Your task to perform on an android device: Play the last video I watched on Youtube Image 0: 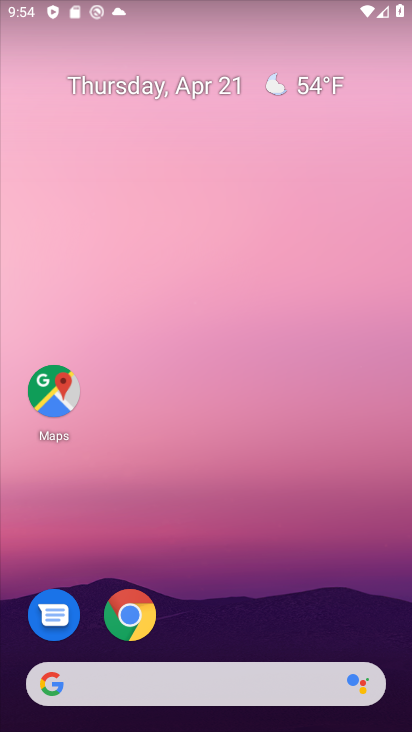
Step 0: drag from (285, 642) to (291, 9)
Your task to perform on an android device: Play the last video I watched on Youtube Image 1: 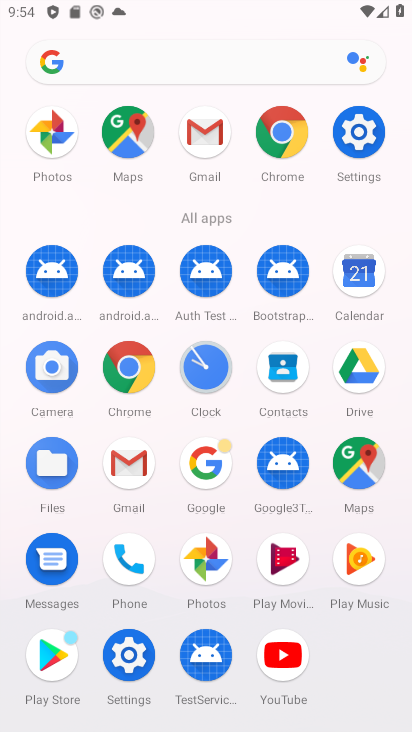
Step 1: click (269, 657)
Your task to perform on an android device: Play the last video I watched on Youtube Image 2: 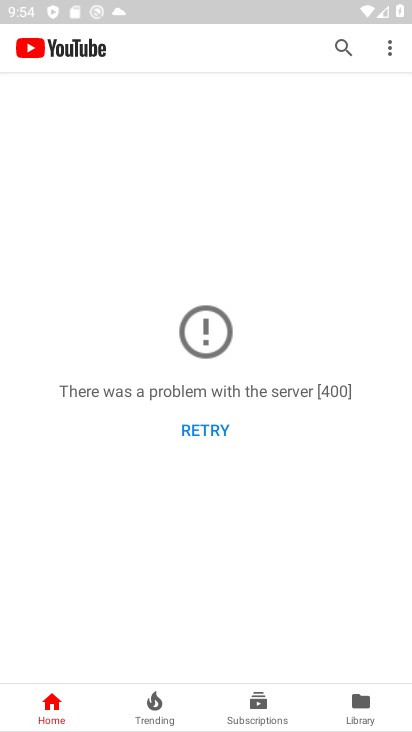
Step 2: click (364, 702)
Your task to perform on an android device: Play the last video I watched on Youtube Image 3: 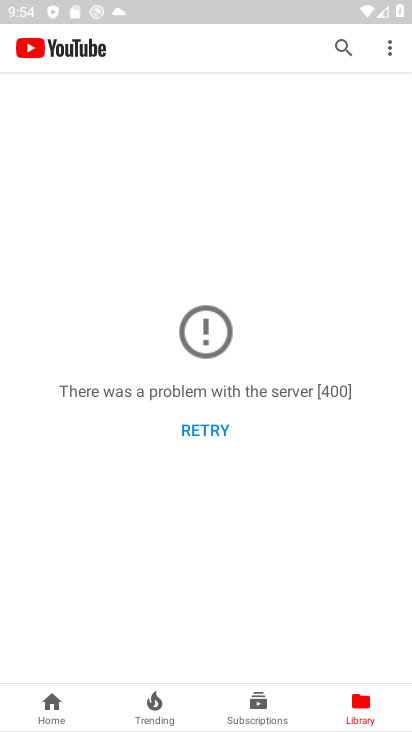
Step 3: click (208, 431)
Your task to perform on an android device: Play the last video I watched on Youtube Image 4: 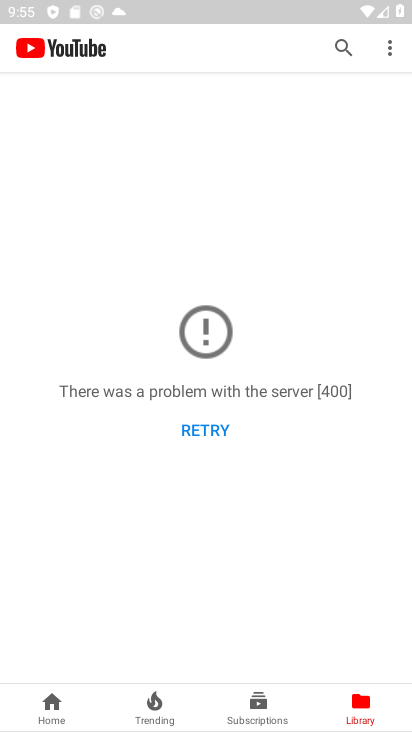
Step 4: task complete